Your task to perform on an android device: open a bookmark in the chrome app Image 0: 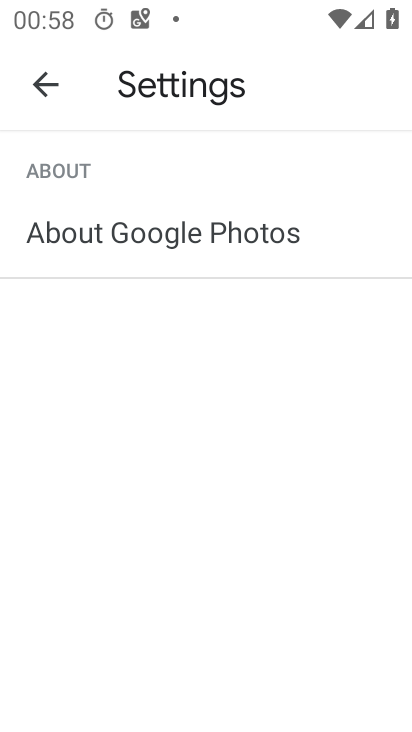
Step 0: press home button
Your task to perform on an android device: open a bookmark in the chrome app Image 1: 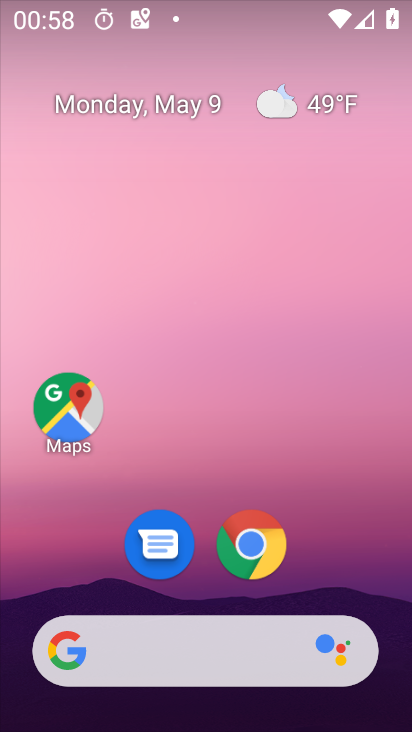
Step 1: drag from (263, 637) to (230, 18)
Your task to perform on an android device: open a bookmark in the chrome app Image 2: 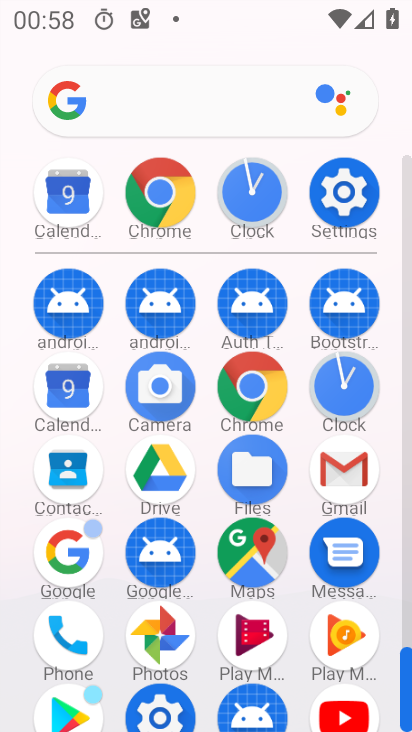
Step 2: click (268, 383)
Your task to perform on an android device: open a bookmark in the chrome app Image 3: 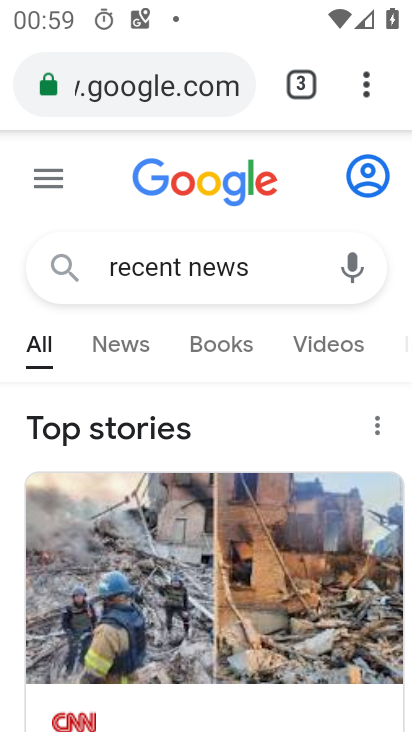
Step 3: task complete